Your task to perform on an android device: Open the calendar app, open the side menu, and click the "Day" option Image 0: 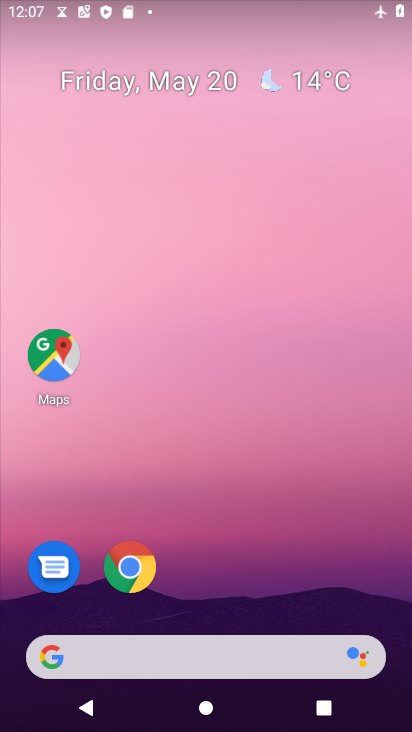
Step 0: drag from (250, 502) to (239, 40)
Your task to perform on an android device: Open the calendar app, open the side menu, and click the "Day" option Image 1: 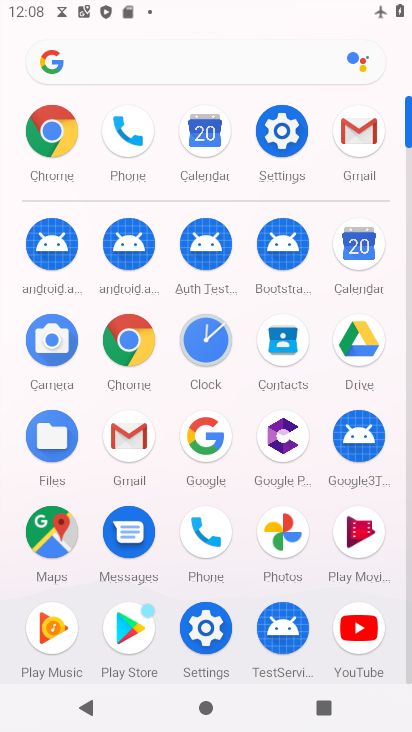
Step 1: click (351, 256)
Your task to perform on an android device: Open the calendar app, open the side menu, and click the "Day" option Image 2: 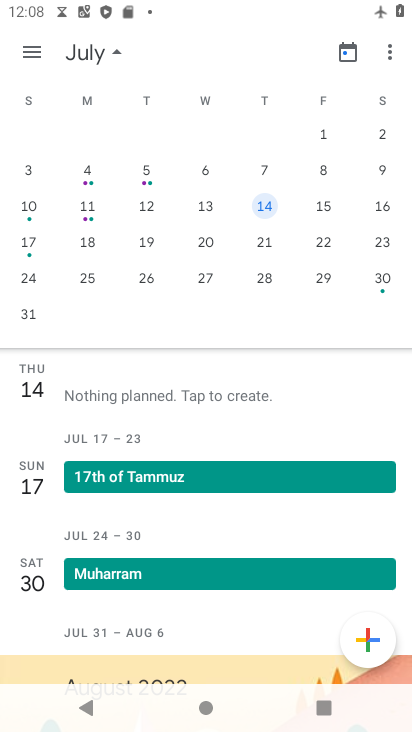
Step 2: click (27, 51)
Your task to perform on an android device: Open the calendar app, open the side menu, and click the "Day" option Image 3: 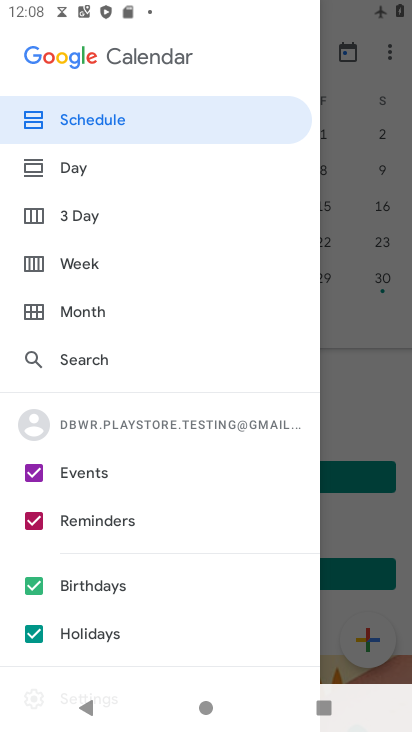
Step 3: click (87, 171)
Your task to perform on an android device: Open the calendar app, open the side menu, and click the "Day" option Image 4: 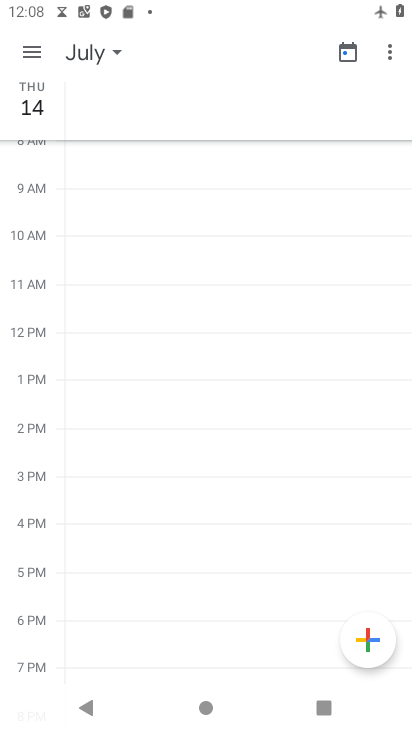
Step 4: task complete